Your task to perform on an android device: Is it going to rain tomorrow? Image 0: 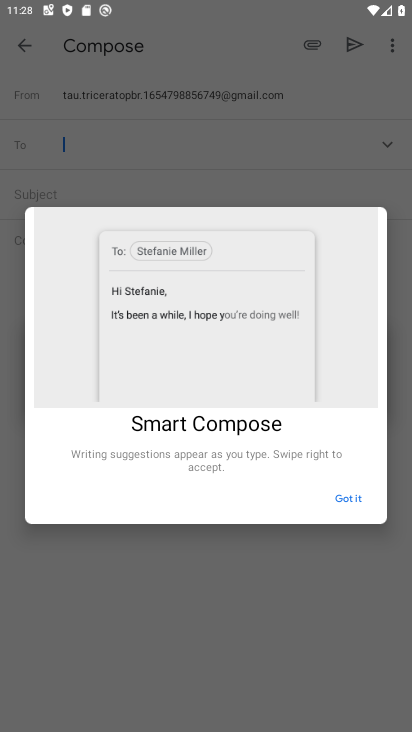
Step 0: press home button
Your task to perform on an android device: Is it going to rain tomorrow? Image 1: 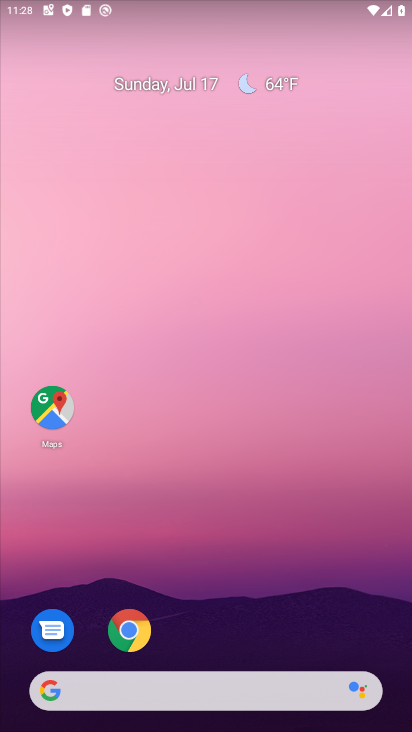
Step 1: click (119, 680)
Your task to perform on an android device: Is it going to rain tomorrow? Image 2: 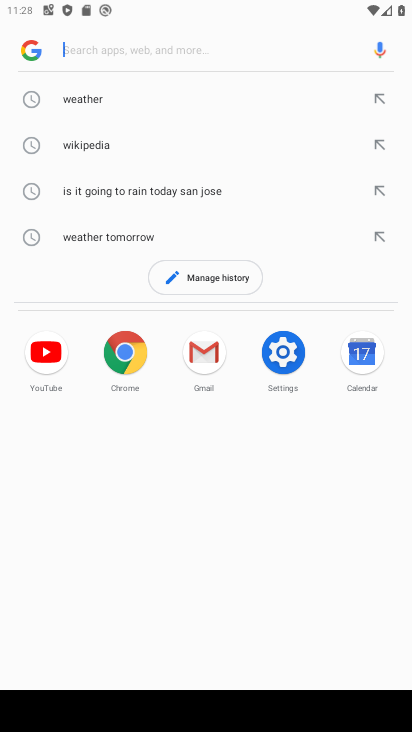
Step 2: click (79, 98)
Your task to perform on an android device: Is it going to rain tomorrow? Image 3: 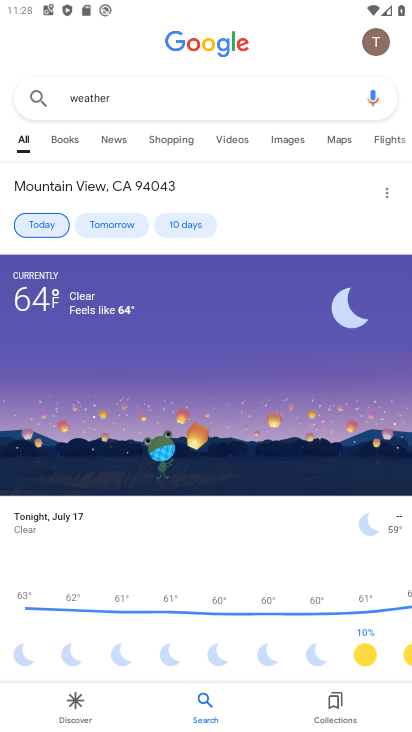
Step 3: click (112, 227)
Your task to perform on an android device: Is it going to rain tomorrow? Image 4: 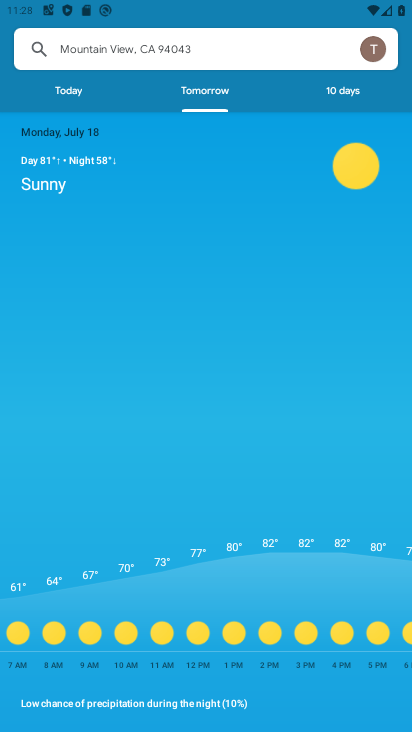
Step 4: task complete